Your task to perform on an android device: Open the Play Movies app and select the watchlist tab. Image 0: 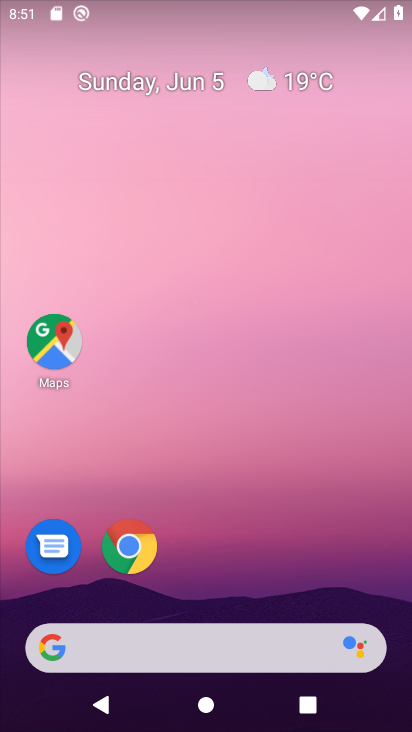
Step 0: drag from (229, 568) to (232, 6)
Your task to perform on an android device: Open the Play Movies app and select the watchlist tab. Image 1: 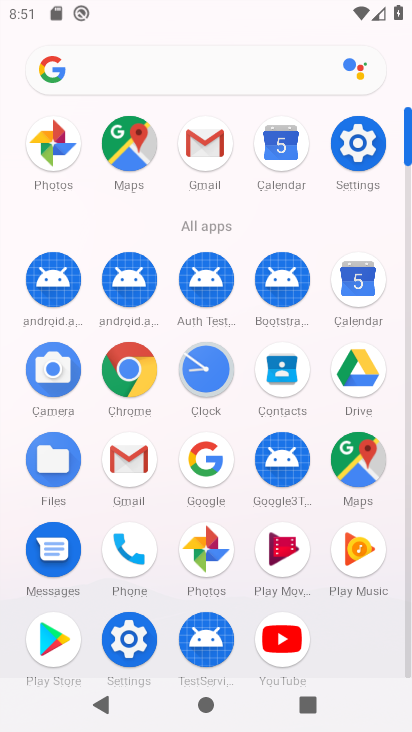
Step 1: click (270, 586)
Your task to perform on an android device: Open the Play Movies app and select the watchlist tab. Image 2: 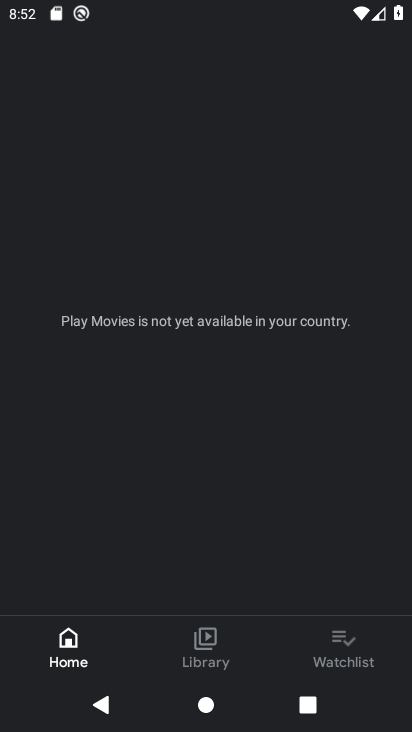
Step 2: click (350, 673)
Your task to perform on an android device: Open the Play Movies app and select the watchlist tab. Image 3: 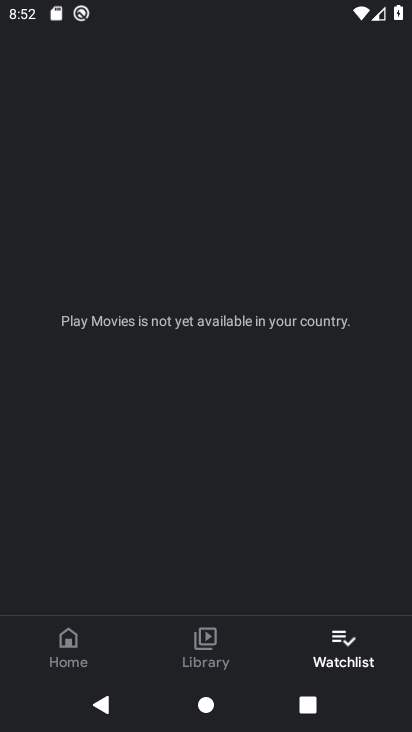
Step 3: task complete